Your task to perform on an android device: set the stopwatch Image 0: 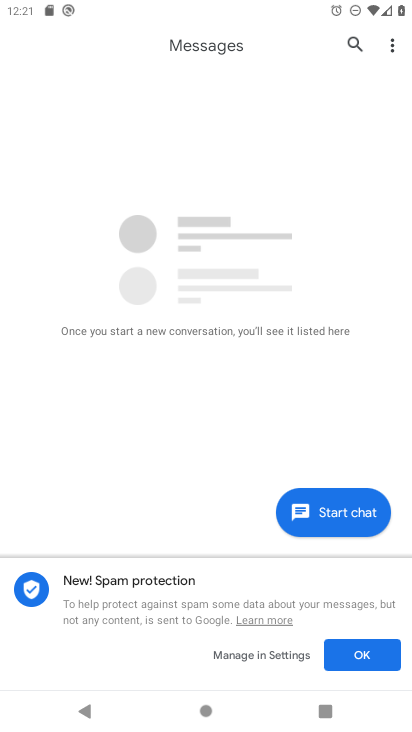
Step 0: press home button
Your task to perform on an android device: set the stopwatch Image 1: 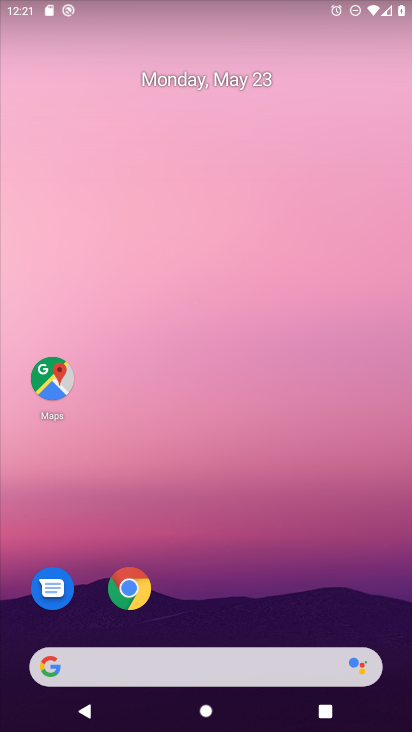
Step 1: drag from (262, 698) to (233, 112)
Your task to perform on an android device: set the stopwatch Image 2: 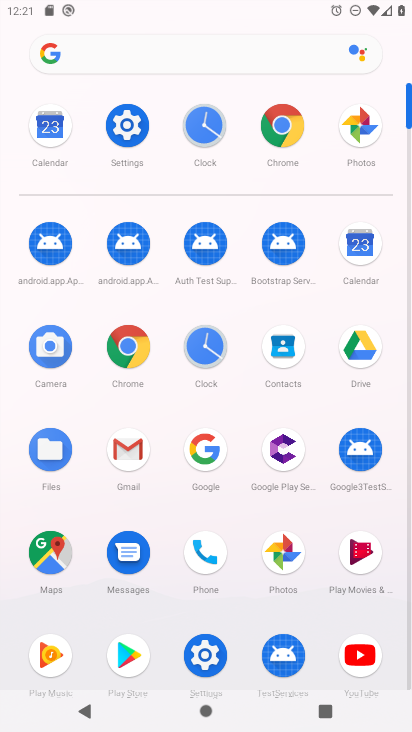
Step 2: click (211, 343)
Your task to perform on an android device: set the stopwatch Image 3: 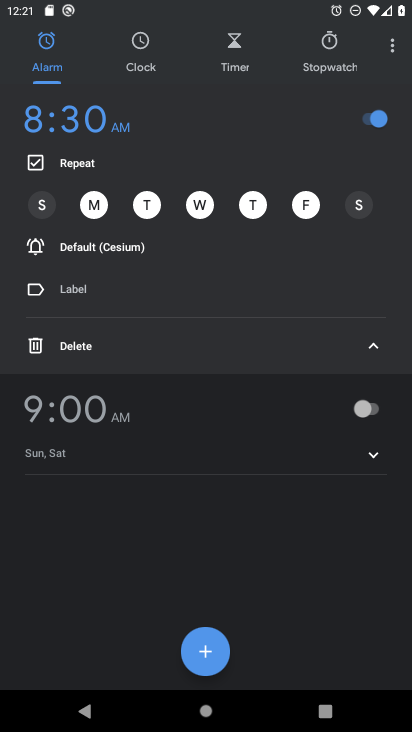
Step 3: click (318, 53)
Your task to perform on an android device: set the stopwatch Image 4: 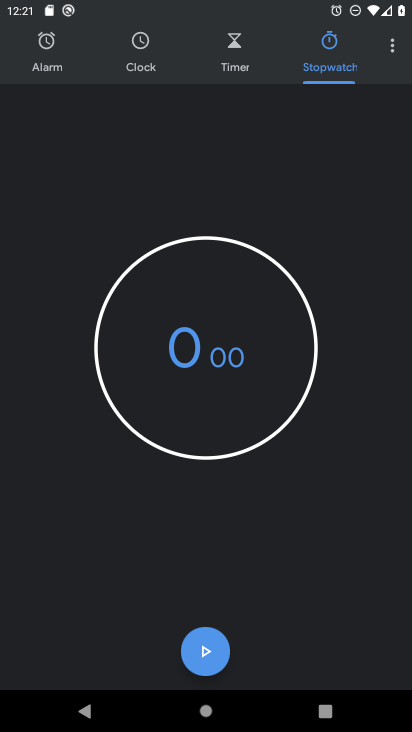
Step 4: task complete